Your task to perform on an android device: turn on notifications settings in the gmail app Image 0: 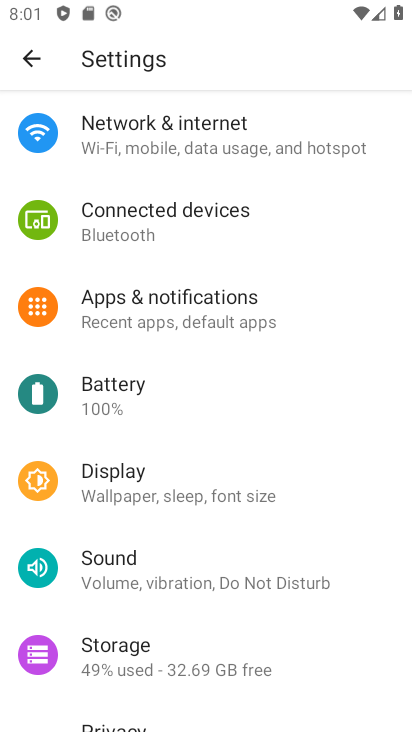
Step 0: press home button
Your task to perform on an android device: turn on notifications settings in the gmail app Image 1: 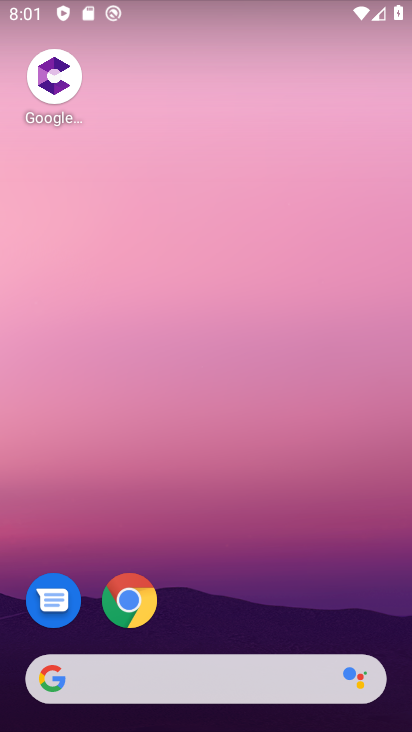
Step 1: drag from (218, 628) to (198, 165)
Your task to perform on an android device: turn on notifications settings in the gmail app Image 2: 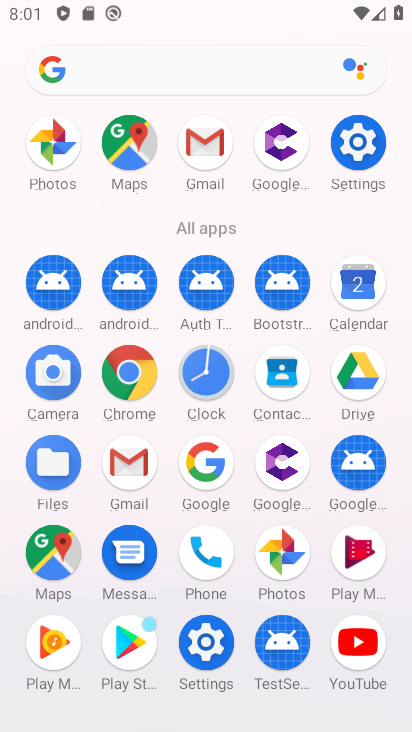
Step 2: click (198, 165)
Your task to perform on an android device: turn on notifications settings in the gmail app Image 3: 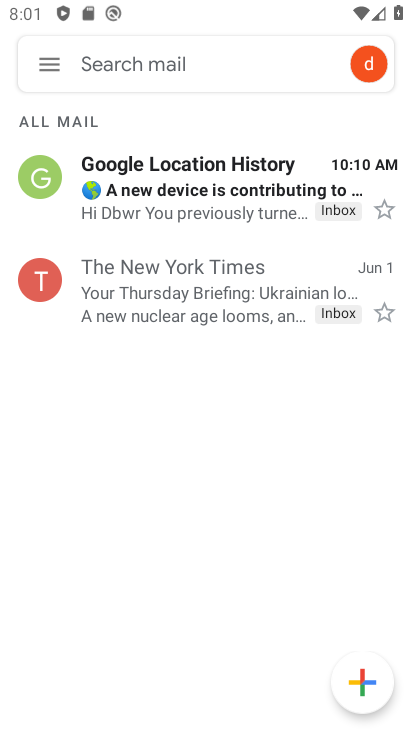
Step 3: click (38, 73)
Your task to perform on an android device: turn on notifications settings in the gmail app Image 4: 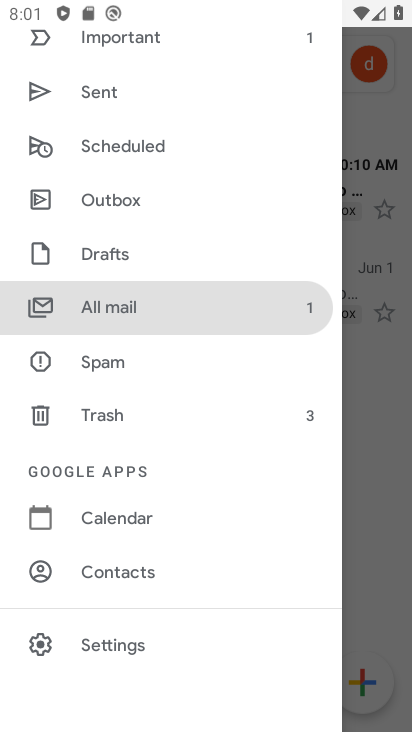
Step 4: click (149, 637)
Your task to perform on an android device: turn on notifications settings in the gmail app Image 5: 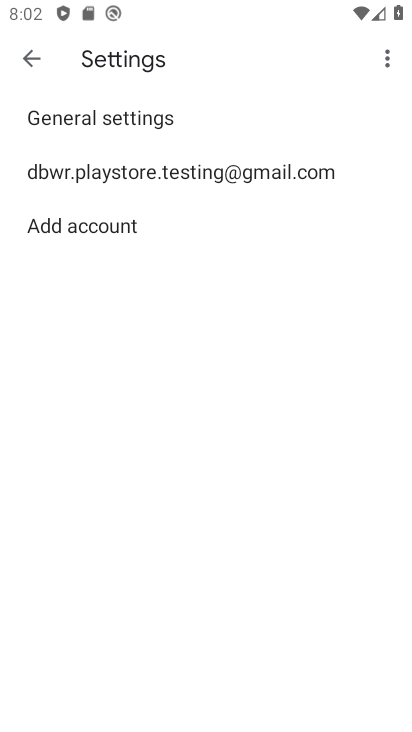
Step 5: click (108, 173)
Your task to perform on an android device: turn on notifications settings in the gmail app Image 6: 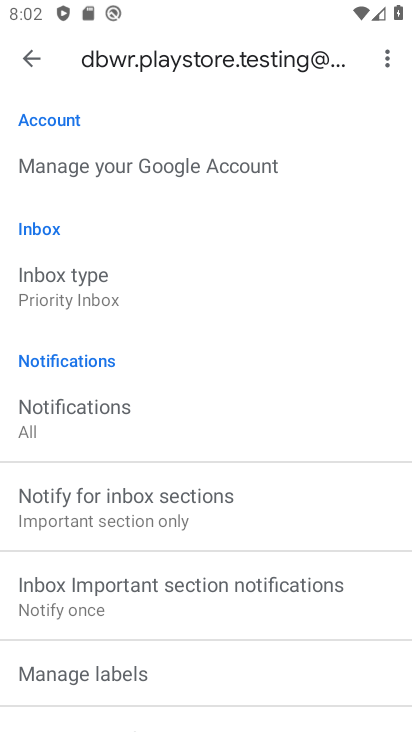
Step 6: drag from (172, 577) to (179, 383)
Your task to perform on an android device: turn on notifications settings in the gmail app Image 7: 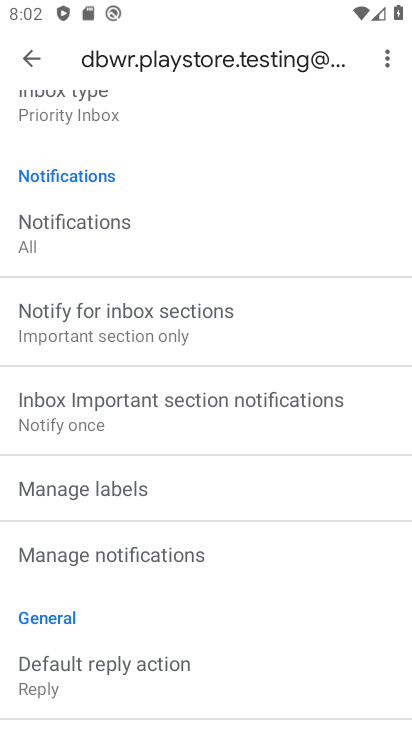
Step 7: click (171, 553)
Your task to perform on an android device: turn on notifications settings in the gmail app Image 8: 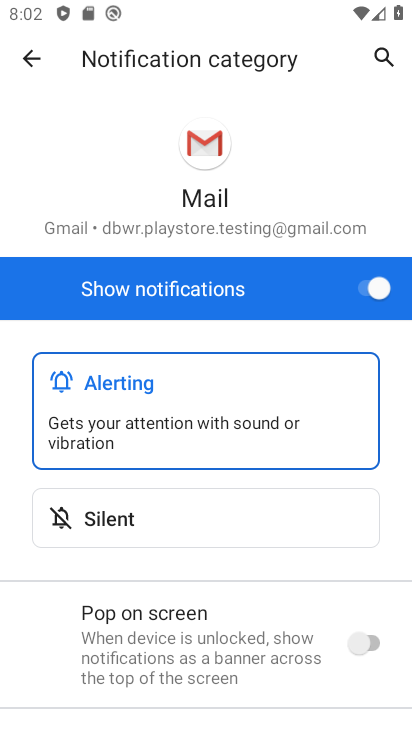
Step 8: task complete